Your task to perform on an android device: empty trash in google photos Image 0: 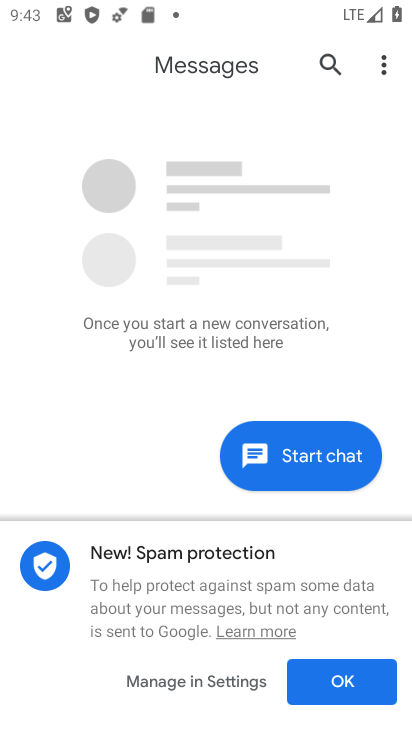
Step 0: press home button
Your task to perform on an android device: empty trash in google photos Image 1: 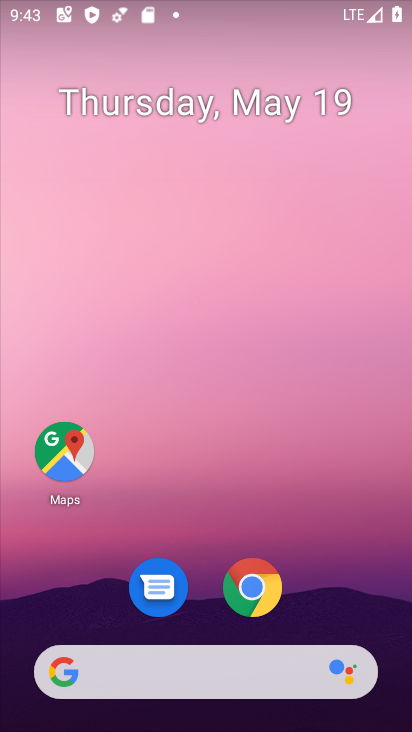
Step 1: drag from (203, 627) to (176, 64)
Your task to perform on an android device: empty trash in google photos Image 2: 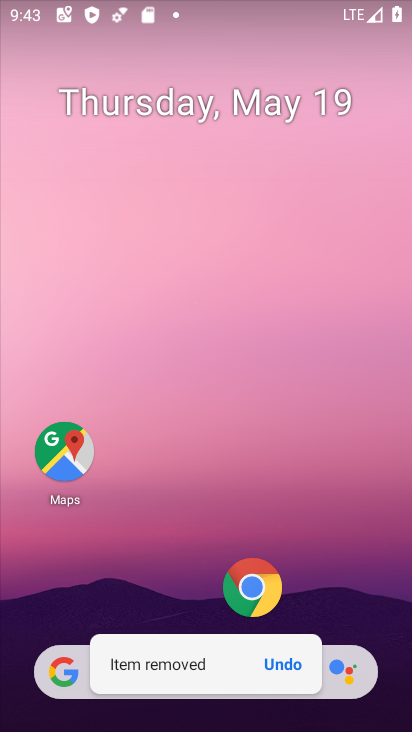
Step 2: click (292, 674)
Your task to perform on an android device: empty trash in google photos Image 3: 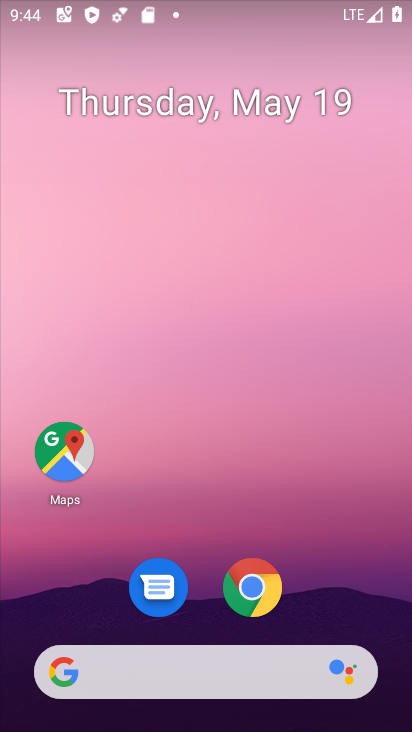
Step 3: drag from (212, 633) to (176, 200)
Your task to perform on an android device: empty trash in google photos Image 4: 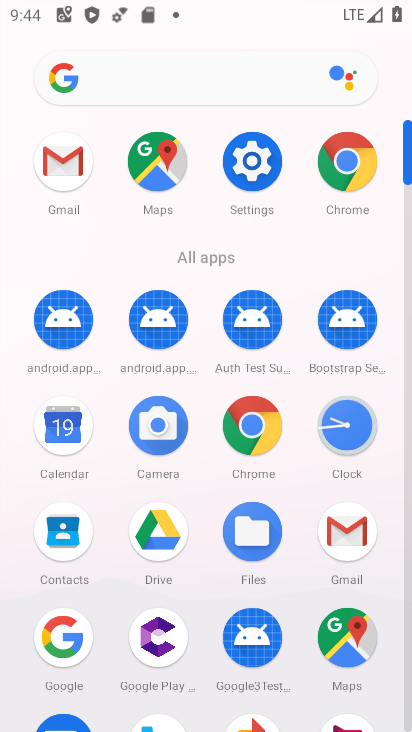
Step 4: drag from (214, 570) to (236, 207)
Your task to perform on an android device: empty trash in google photos Image 5: 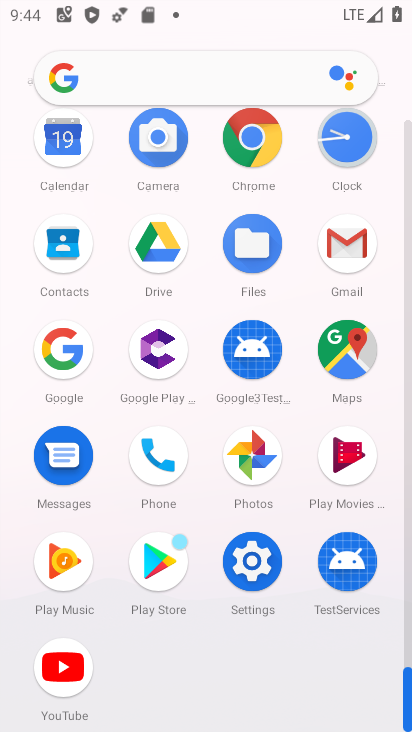
Step 5: click (253, 463)
Your task to perform on an android device: empty trash in google photos Image 6: 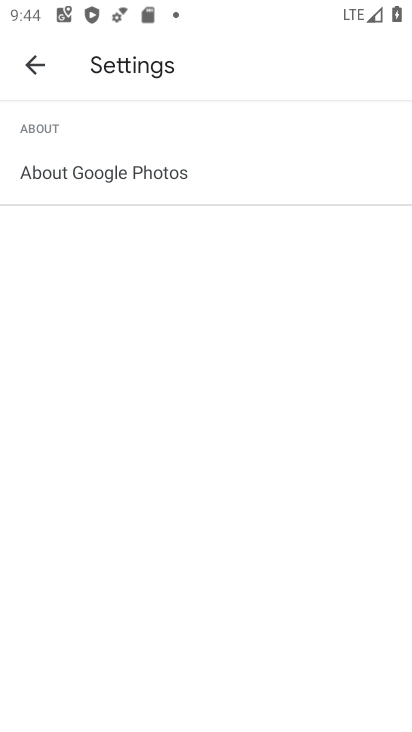
Step 6: click (35, 64)
Your task to perform on an android device: empty trash in google photos Image 7: 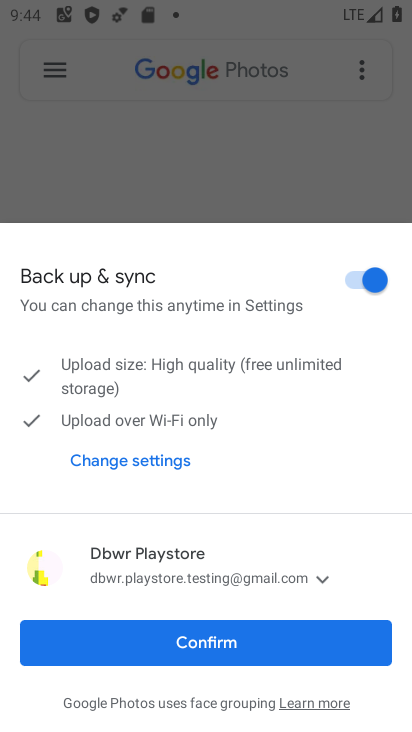
Step 7: click (168, 654)
Your task to perform on an android device: empty trash in google photos Image 8: 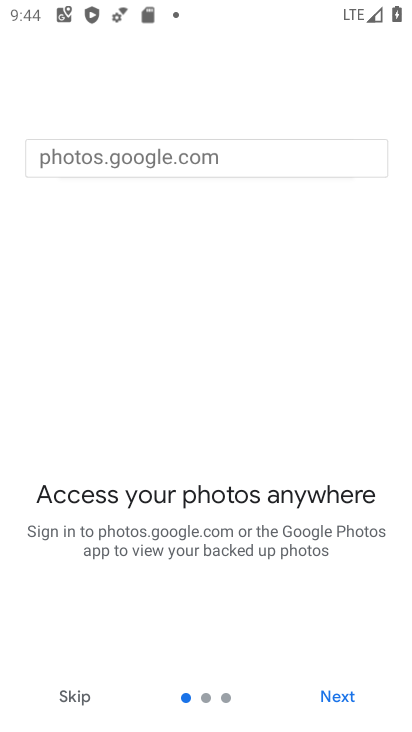
Step 8: click (353, 714)
Your task to perform on an android device: empty trash in google photos Image 9: 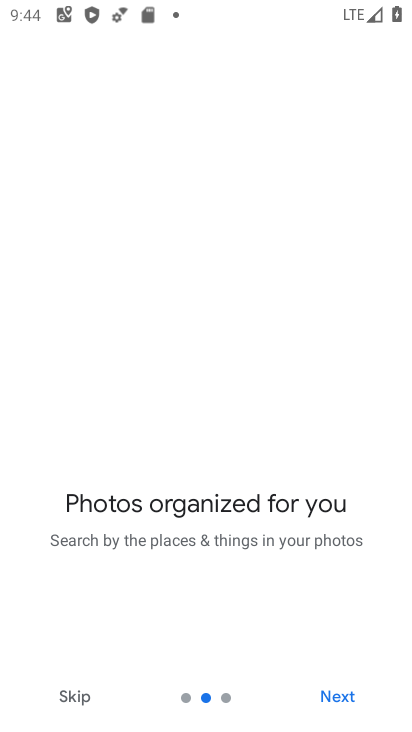
Step 9: click (353, 714)
Your task to perform on an android device: empty trash in google photos Image 10: 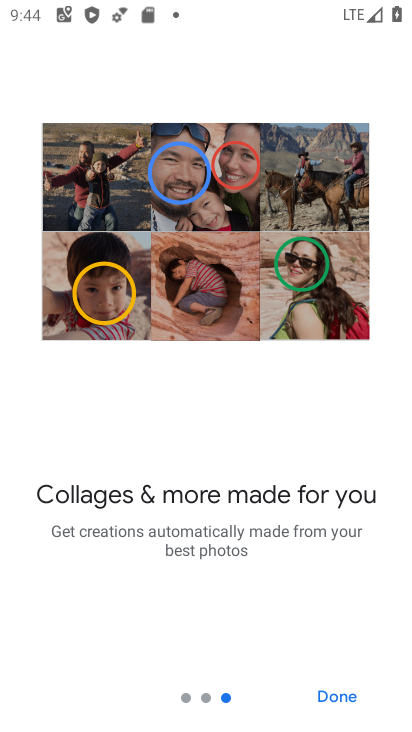
Step 10: click (353, 714)
Your task to perform on an android device: empty trash in google photos Image 11: 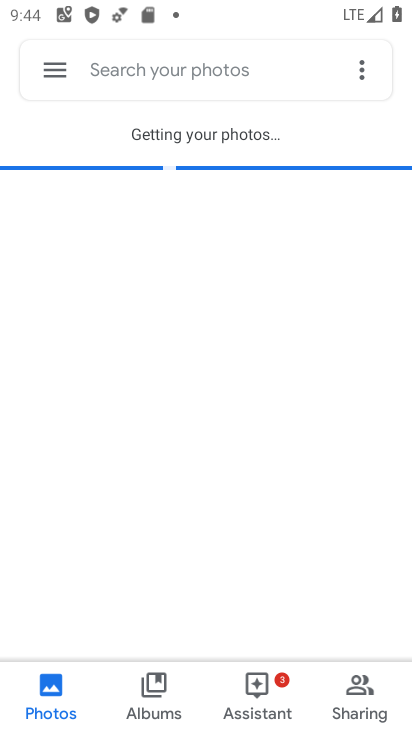
Step 11: click (341, 697)
Your task to perform on an android device: empty trash in google photos Image 12: 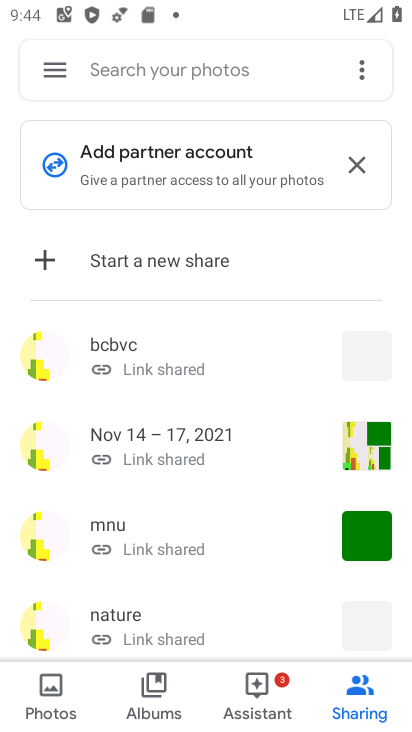
Step 12: click (43, 695)
Your task to perform on an android device: empty trash in google photos Image 13: 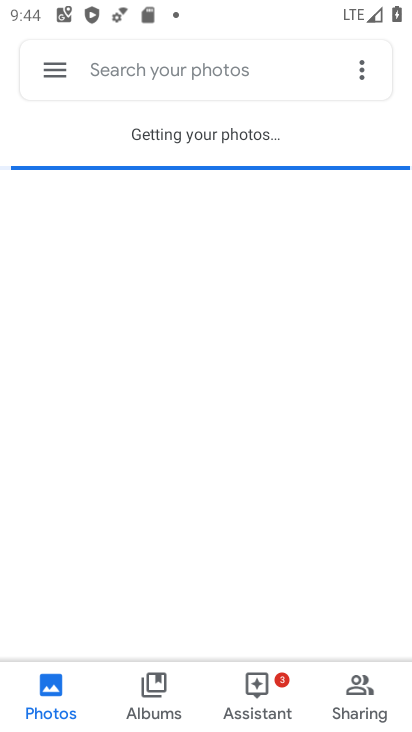
Step 13: click (53, 76)
Your task to perform on an android device: empty trash in google photos Image 14: 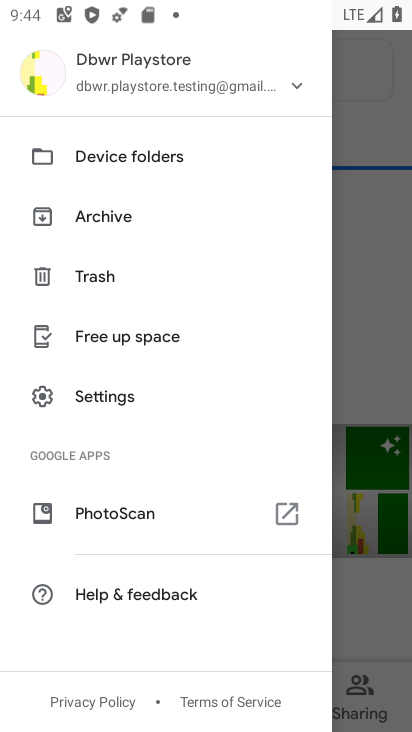
Step 14: click (107, 268)
Your task to perform on an android device: empty trash in google photos Image 15: 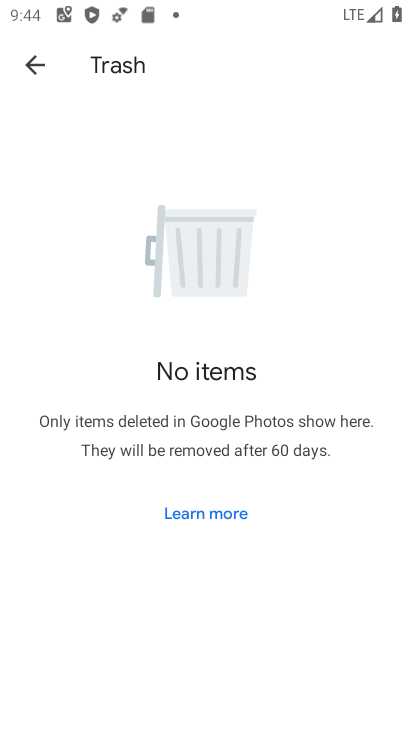
Step 15: task complete